Your task to perform on an android device: change the upload size in google photos Image 0: 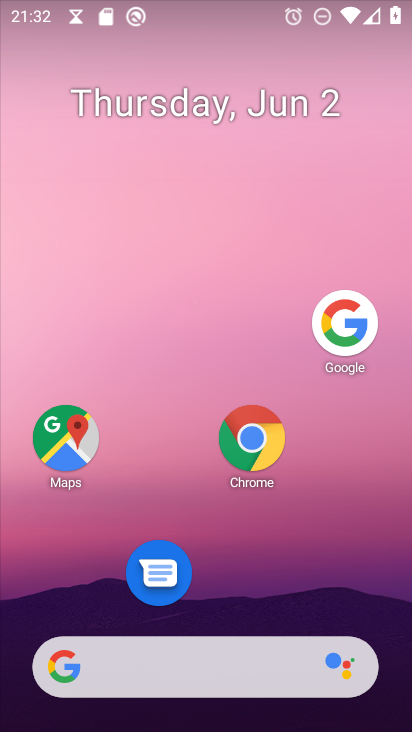
Step 0: press home button
Your task to perform on an android device: change the upload size in google photos Image 1: 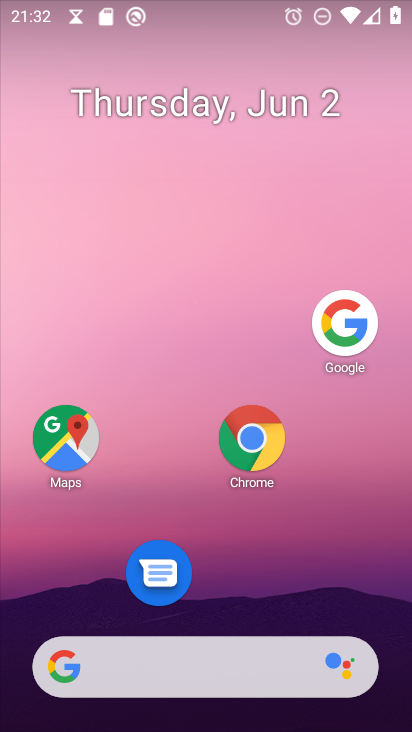
Step 1: drag from (196, 664) to (305, 187)
Your task to perform on an android device: change the upload size in google photos Image 2: 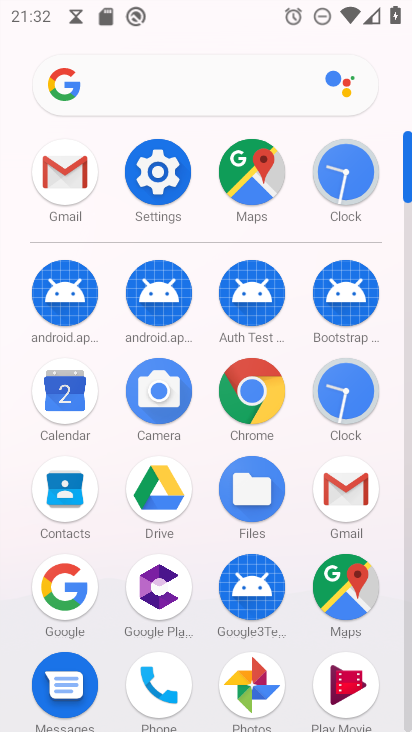
Step 2: drag from (208, 643) to (267, 357)
Your task to perform on an android device: change the upload size in google photos Image 3: 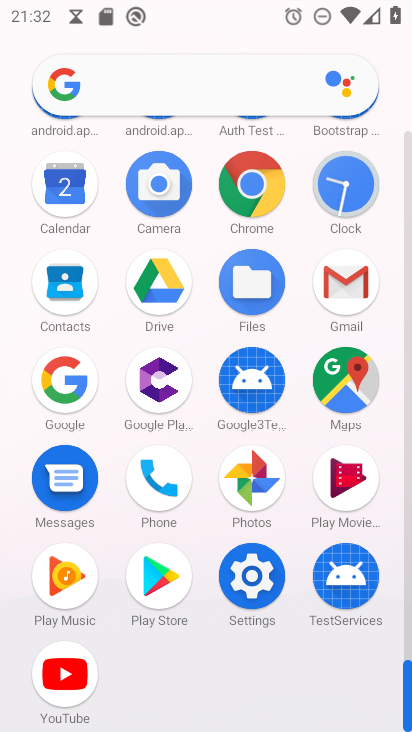
Step 3: click (250, 480)
Your task to perform on an android device: change the upload size in google photos Image 4: 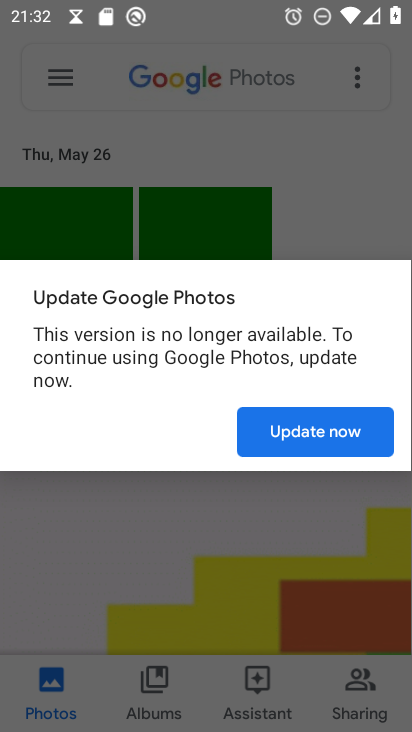
Step 4: click (313, 424)
Your task to perform on an android device: change the upload size in google photos Image 5: 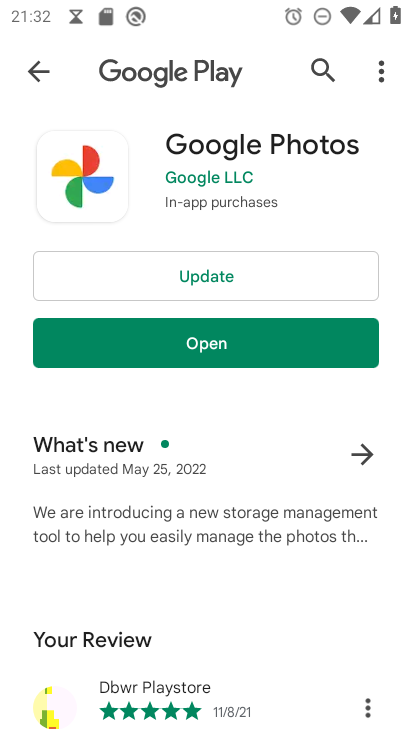
Step 5: click (208, 274)
Your task to perform on an android device: change the upload size in google photos Image 6: 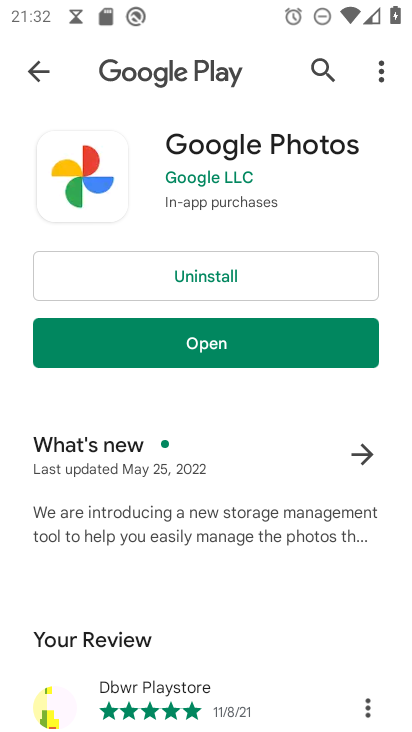
Step 6: click (219, 345)
Your task to perform on an android device: change the upload size in google photos Image 7: 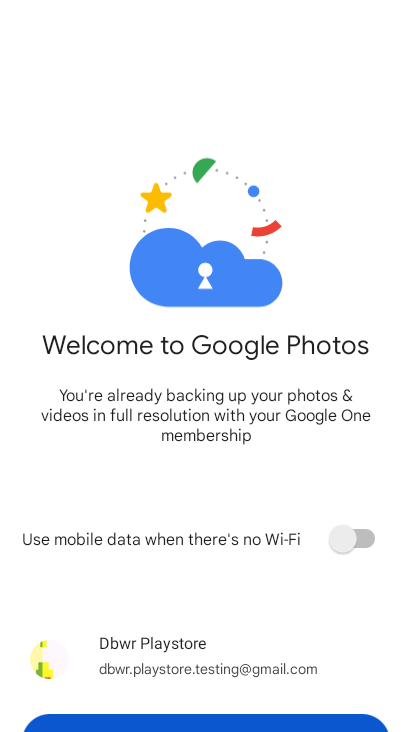
Step 7: drag from (255, 365) to (335, 161)
Your task to perform on an android device: change the upload size in google photos Image 8: 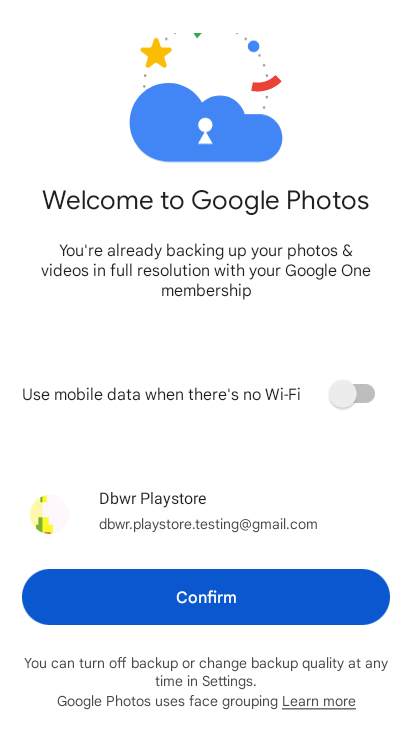
Step 8: drag from (205, 693) to (310, 265)
Your task to perform on an android device: change the upload size in google photos Image 9: 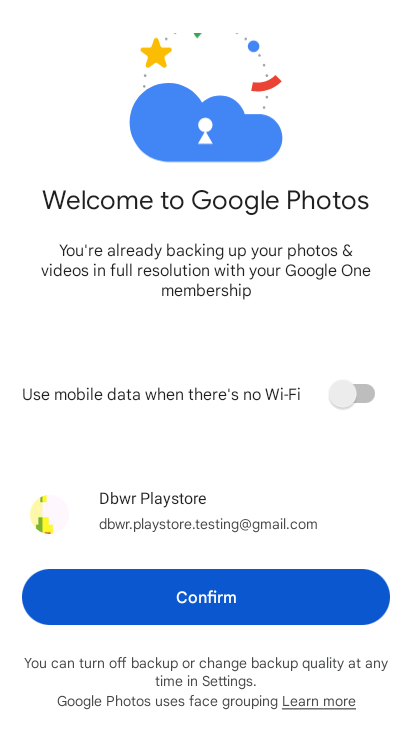
Step 9: click (211, 591)
Your task to perform on an android device: change the upload size in google photos Image 10: 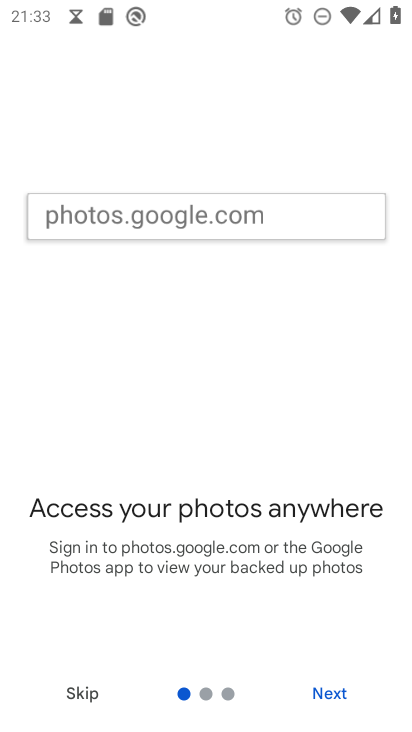
Step 10: click (319, 692)
Your task to perform on an android device: change the upload size in google photos Image 11: 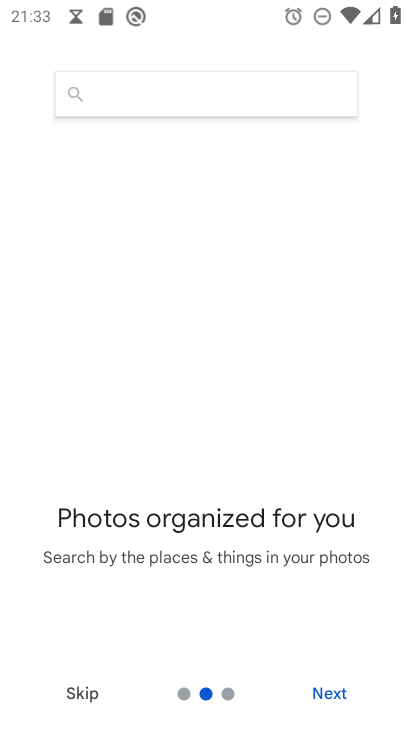
Step 11: click (321, 692)
Your task to perform on an android device: change the upload size in google photos Image 12: 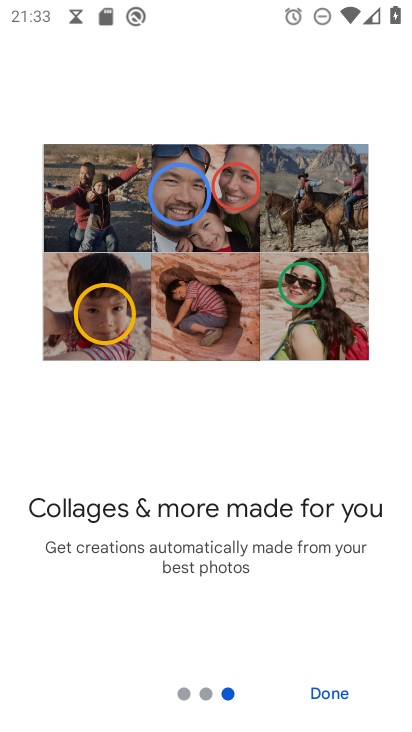
Step 12: click (321, 692)
Your task to perform on an android device: change the upload size in google photos Image 13: 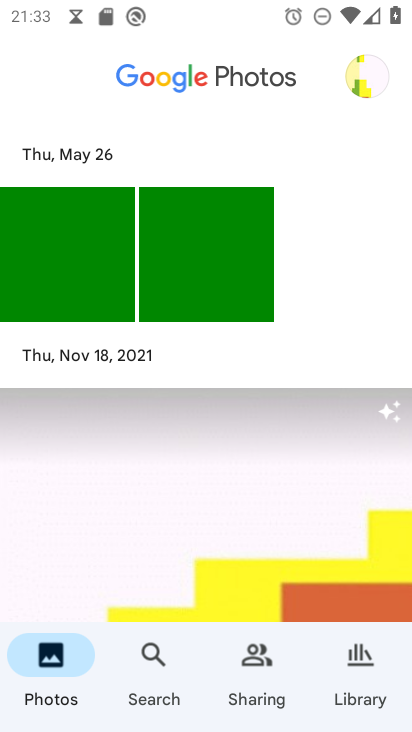
Step 13: click (371, 74)
Your task to perform on an android device: change the upload size in google photos Image 14: 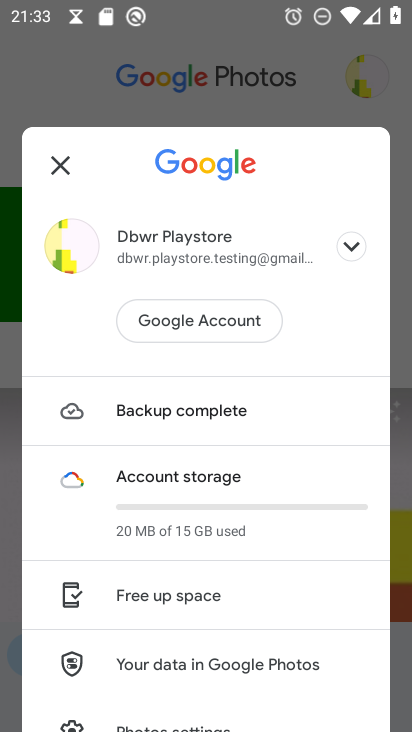
Step 14: drag from (206, 586) to (321, 202)
Your task to perform on an android device: change the upload size in google photos Image 15: 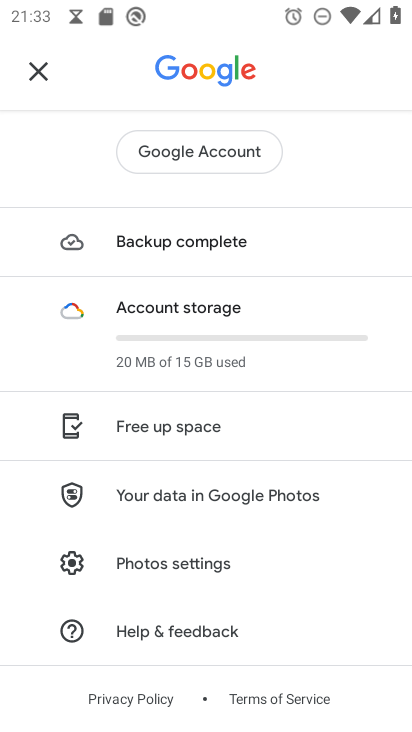
Step 15: click (213, 560)
Your task to perform on an android device: change the upload size in google photos Image 16: 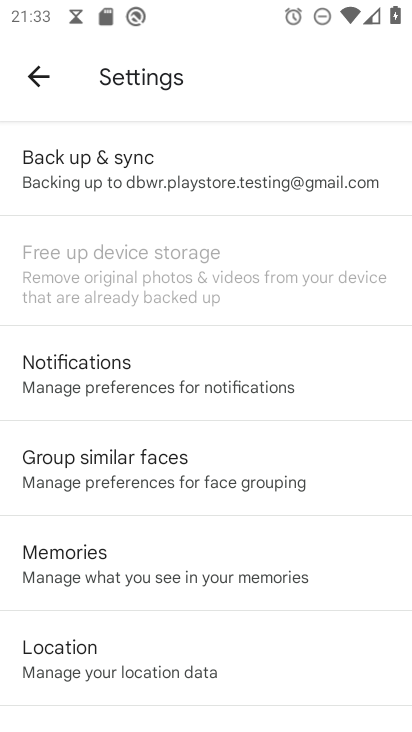
Step 16: click (137, 170)
Your task to perform on an android device: change the upload size in google photos Image 17: 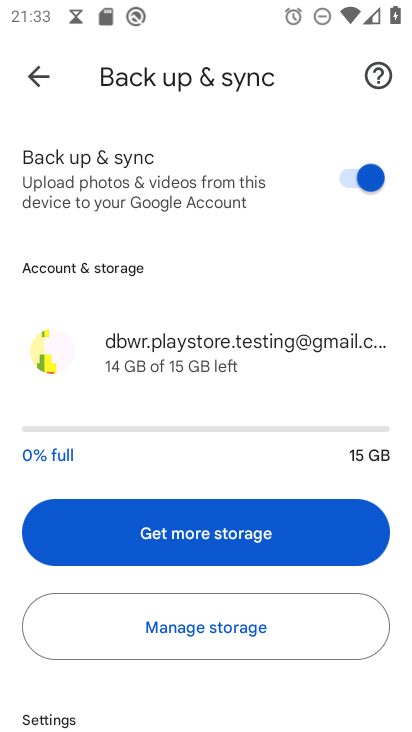
Step 17: drag from (191, 447) to (258, 122)
Your task to perform on an android device: change the upload size in google photos Image 18: 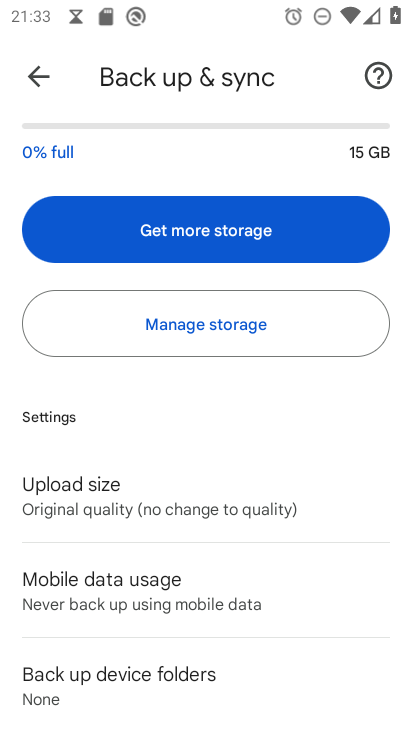
Step 18: click (90, 510)
Your task to perform on an android device: change the upload size in google photos Image 19: 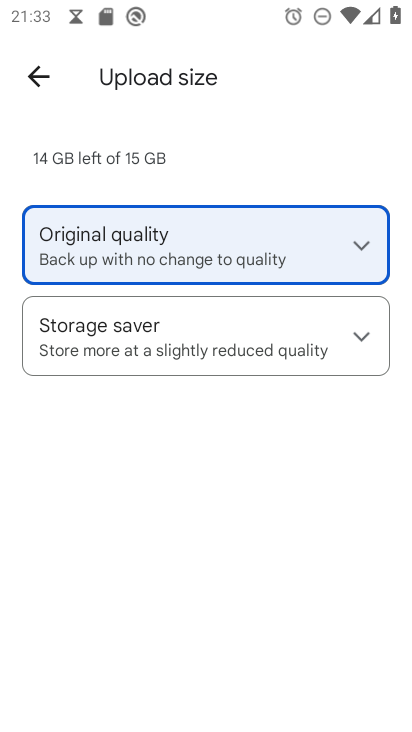
Step 19: click (351, 332)
Your task to perform on an android device: change the upload size in google photos Image 20: 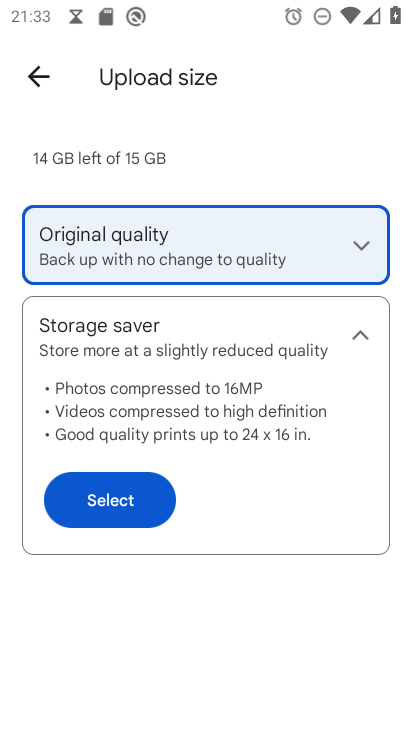
Step 20: click (98, 502)
Your task to perform on an android device: change the upload size in google photos Image 21: 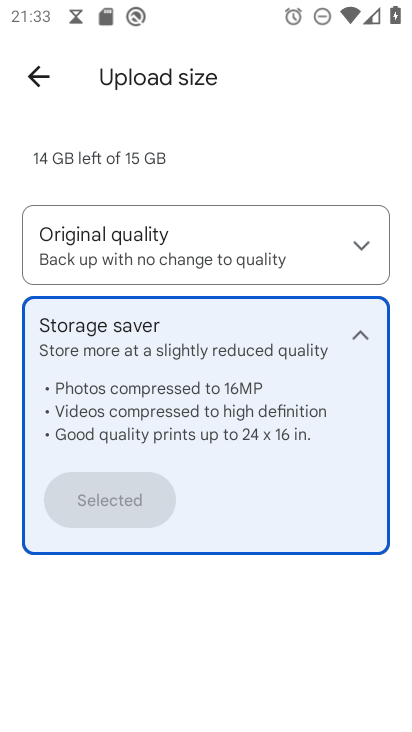
Step 21: task complete